Your task to perform on an android device: Show me productivity apps on the Play Store Image 0: 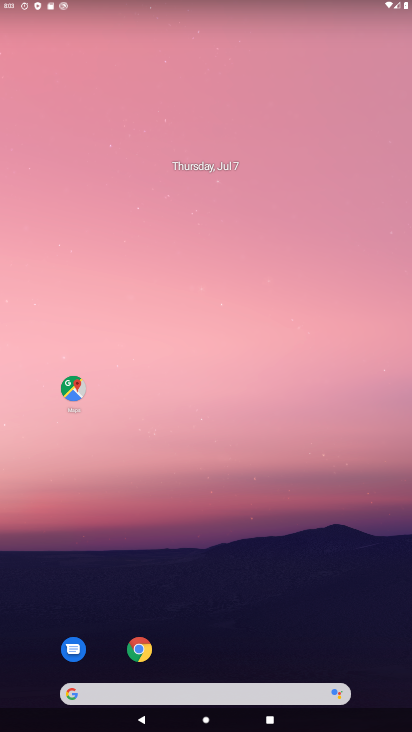
Step 0: press home button
Your task to perform on an android device: Show me productivity apps on the Play Store Image 1: 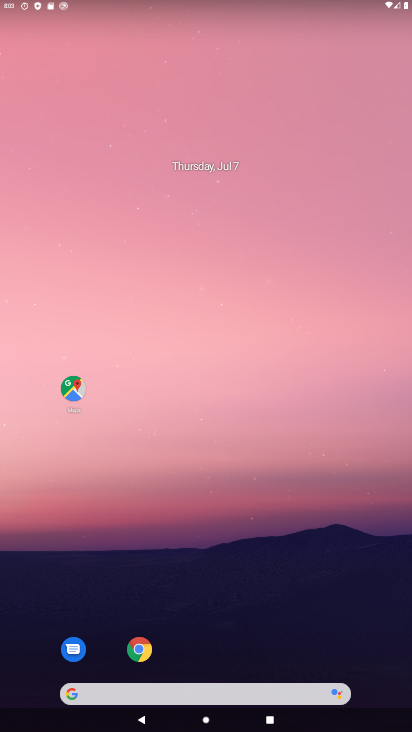
Step 1: drag from (242, 653) to (245, 162)
Your task to perform on an android device: Show me productivity apps on the Play Store Image 2: 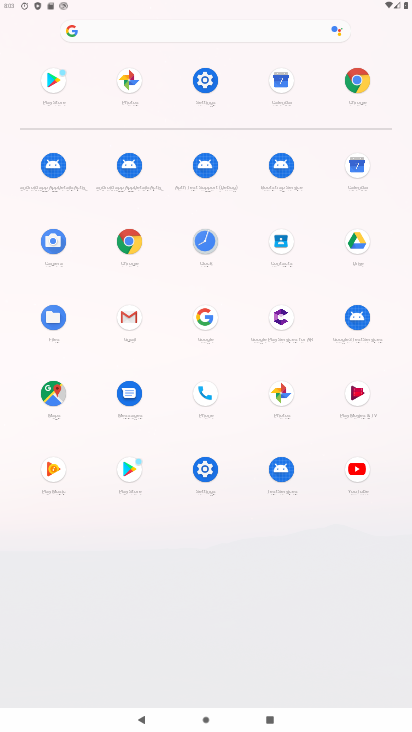
Step 2: click (135, 467)
Your task to perform on an android device: Show me productivity apps on the Play Store Image 3: 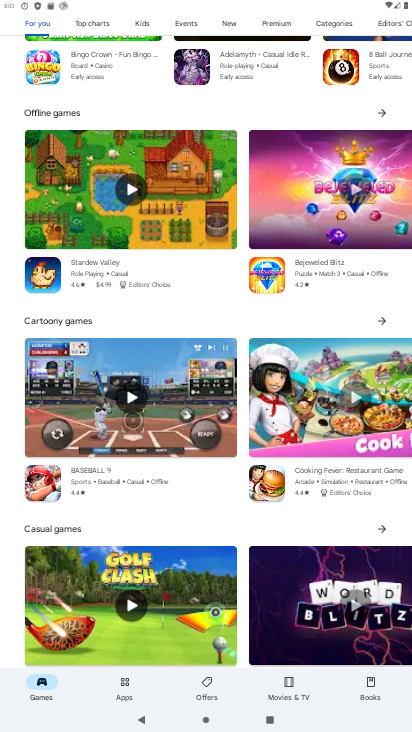
Step 3: click (122, 675)
Your task to perform on an android device: Show me productivity apps on the Play Store Image 4: 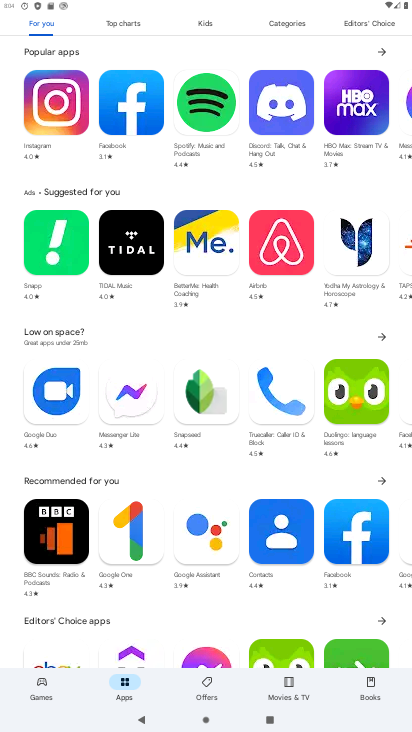
Step 4: click (283, 25)
Your task to perform on an android device: Show me productivity apps on the Play Store Image 5: 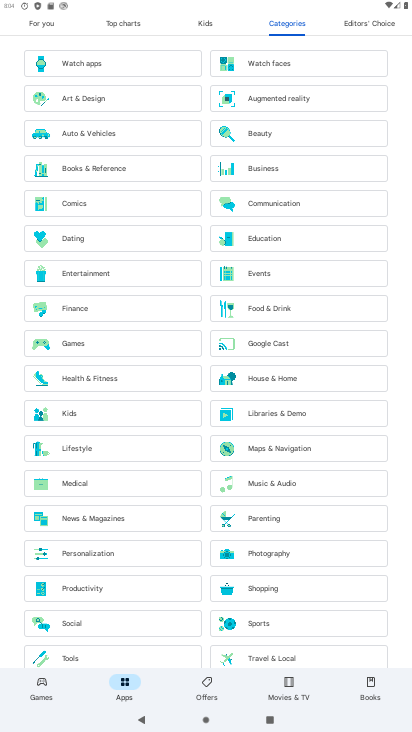
Step 5: click (99, 584)
Your task to perform on an android device: Show me productivity apps on the Play Store Image 6: 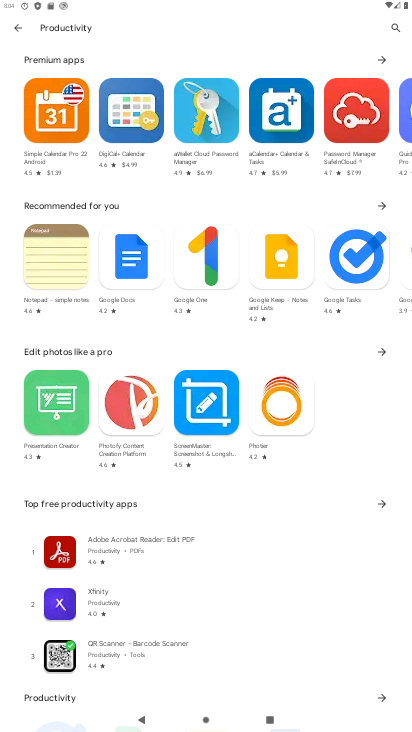
Step 6: task complete